Your task to perform on an android device: Open Youtube and go to the subscriptions tab Image 0: 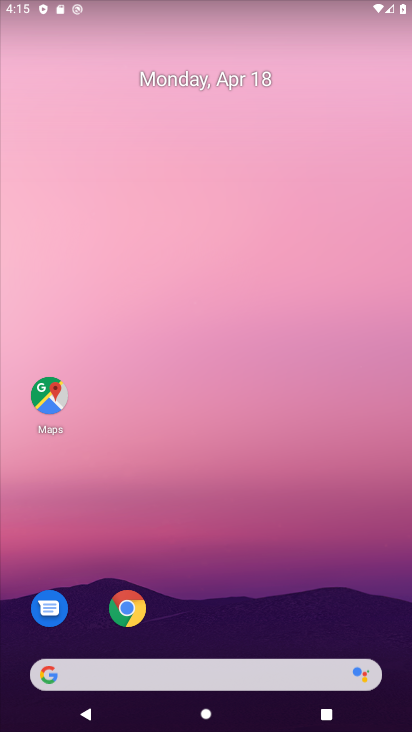
Step 0: drag from (275, 479) to (312, 75)
Your task to perform on an android device: Open Youtube and go to the subscriptions tab Image 1: 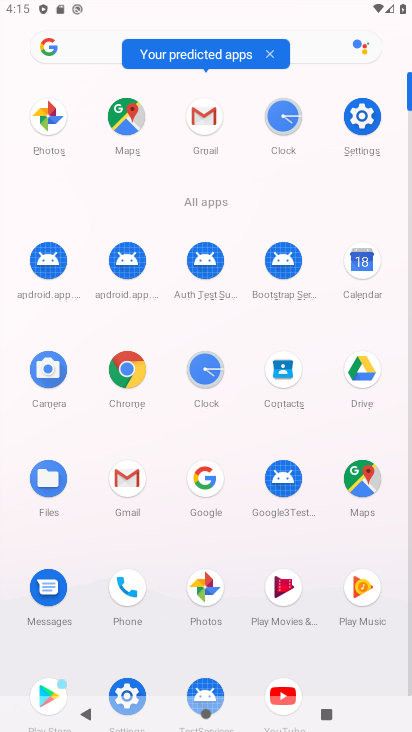
Step 1: drag from (333, 570) to (361, 356)
Your task to perform on an android device: Open Youtube and go to the subscriptions tab Image 2: 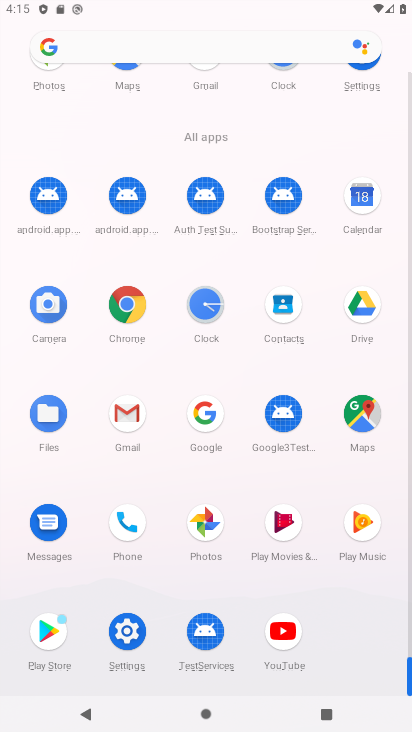
Step 2: click (278, 638)
Your task to perform on an android device: Open Youtube and go to the subscriptions tab Image 3: 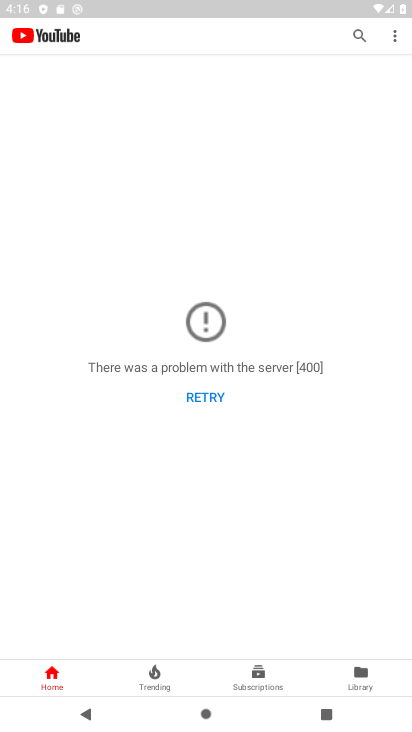
Step 3: click (396, 34)
Your task to perform on an android device: Open Youtube and go to the subscriptions tab Image 4: 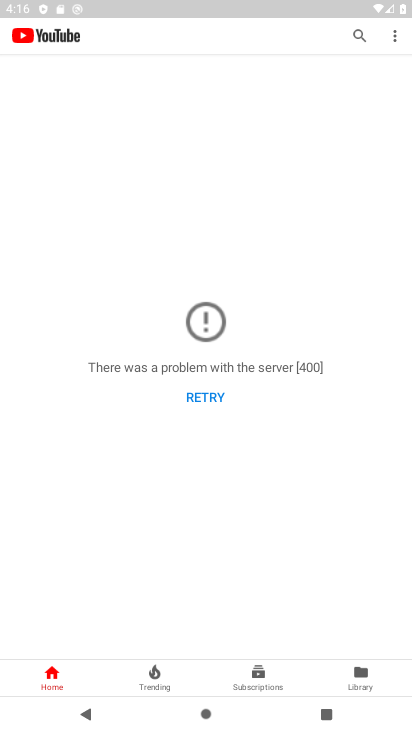
Step 4: click (361, 67)
Your task to perform on an android device: Open Youtube and go to the subscriptions tab Image 5: 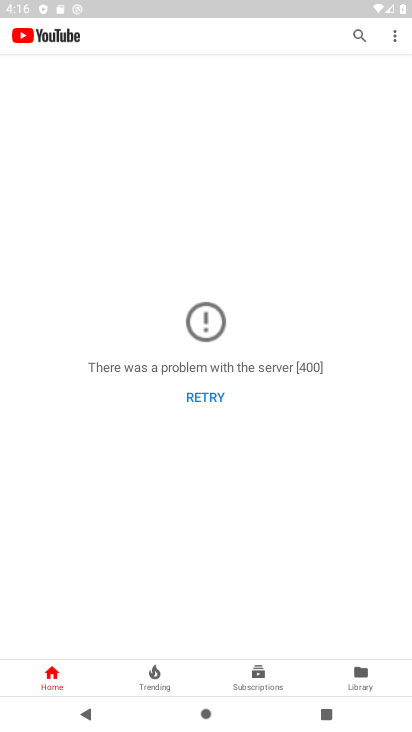
Step 5: click (395, 37)
Your task to perform on an android device: Open Youtube and go to the subscriptions tab Image 6: 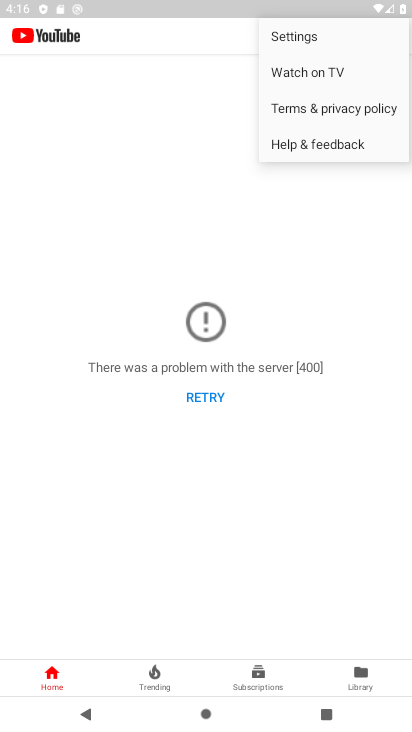
Step 6: click (393, 38)
Your task to perform on an android device: Open Youtube and go to the subscriptions tab Image 7: 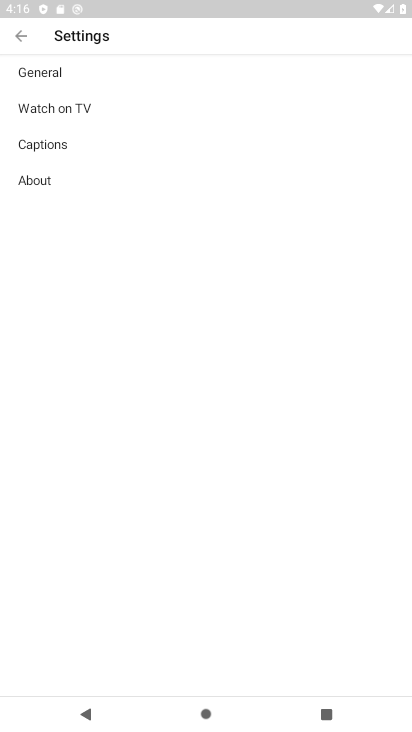
Step 7: click (15, 29)
Your task to perform on an android device: Open Youtube and go to the subscriptions tab Image 8: 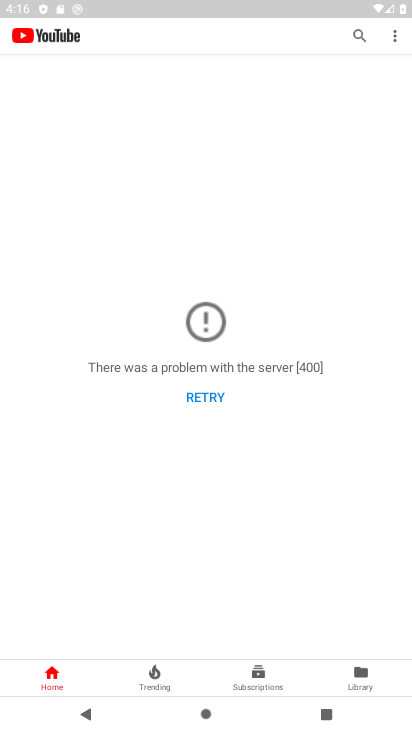
Step 8: click (17, 31)
Your task to perform on an android device: Open Youtube and go to the subscriptions tab Image 9: 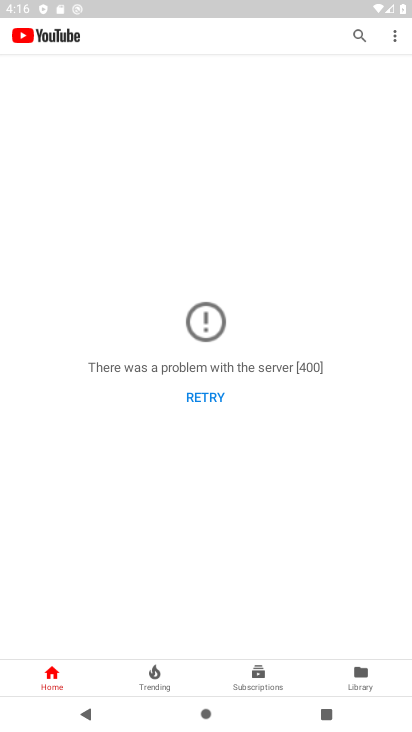
Step 9: click (17, 31)
Your task to perform on an android device: Open Youtube and go to the subscriptions tab Image 10: 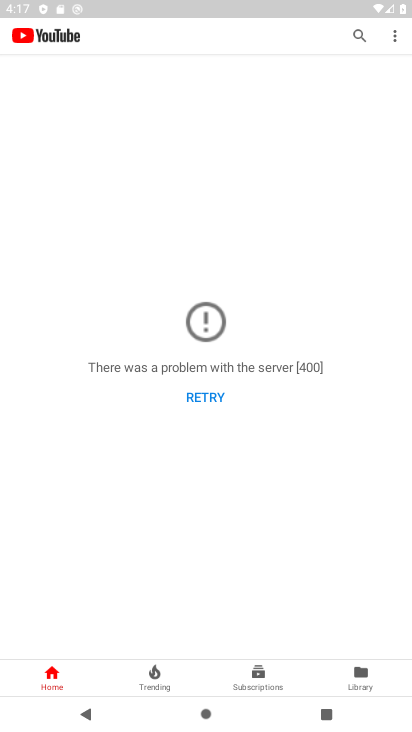
Step 10: task complete